Your task to perform on an android device: Find coffee shops on Maps Image 0: 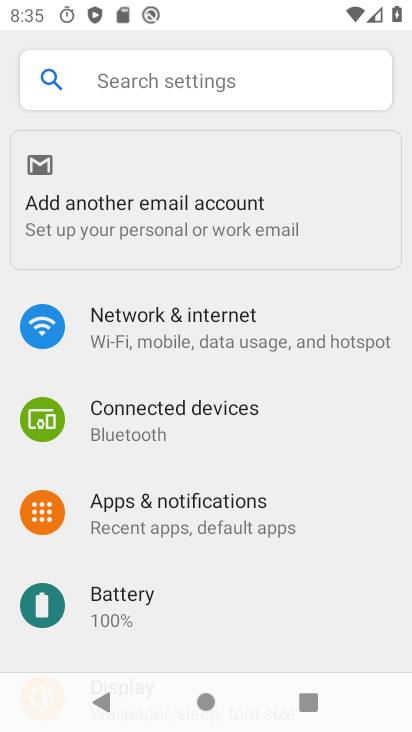
Step 0: press home button
Your task to perform on an android device: Find coffee shops on Maps Image 1: 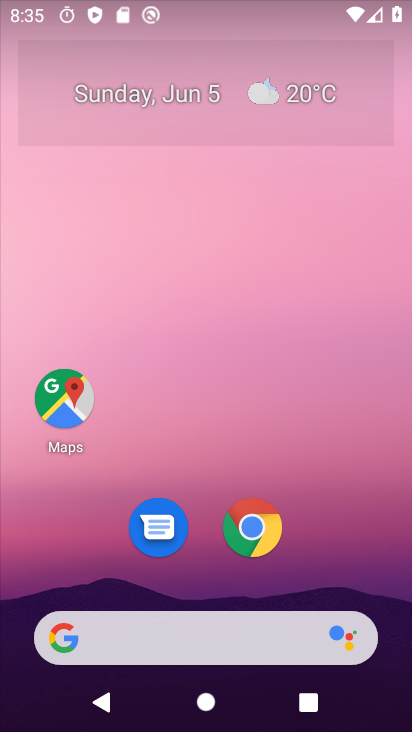
Step 1: drag from (237, 703) to (242, 109)
Your task to perform on an android device: Find coffee shops on Maps Image 2: 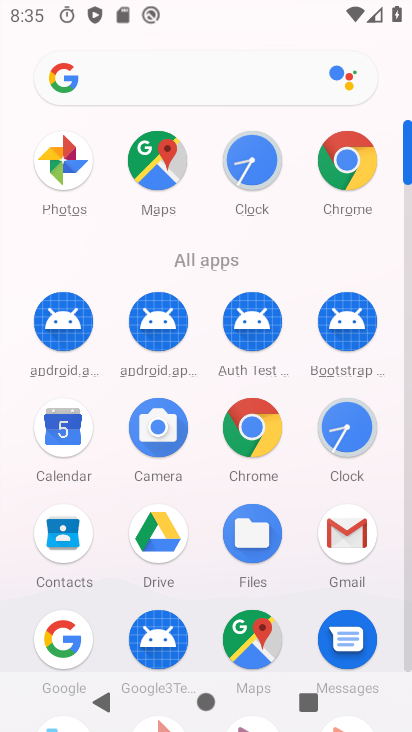
Step 2: click (254, 632)
Your task to perform on an android device: Find coffee shops on Maps Image 3: 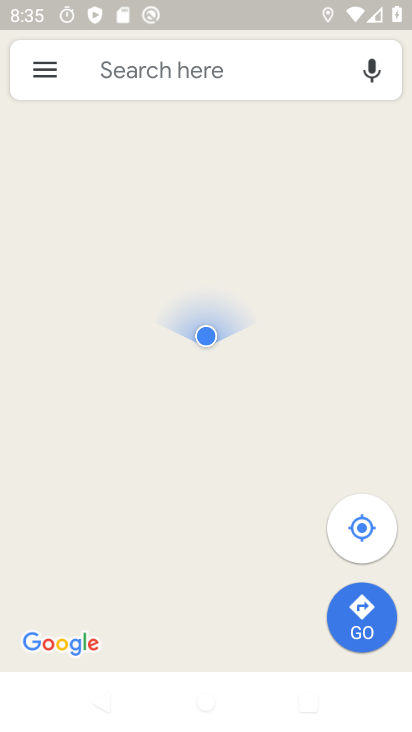
Step 3: click (206, 75)
Your task to perform on an android device: Find coffee shops on Maps Image 4: 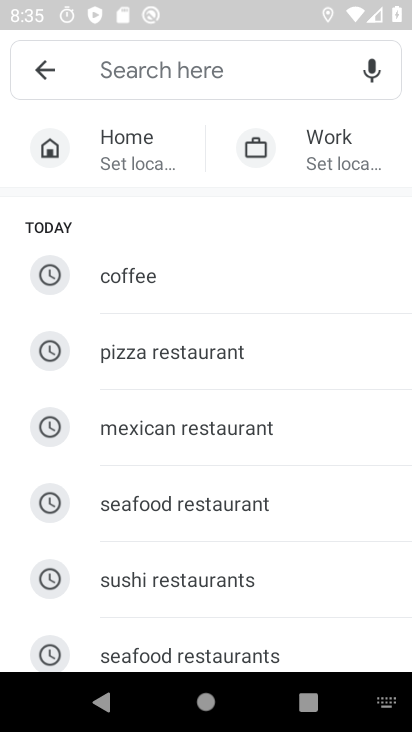
Step 4: type "coffee shops"
Your task to perform on an android device: Find coffee shops on Maps Image 5: 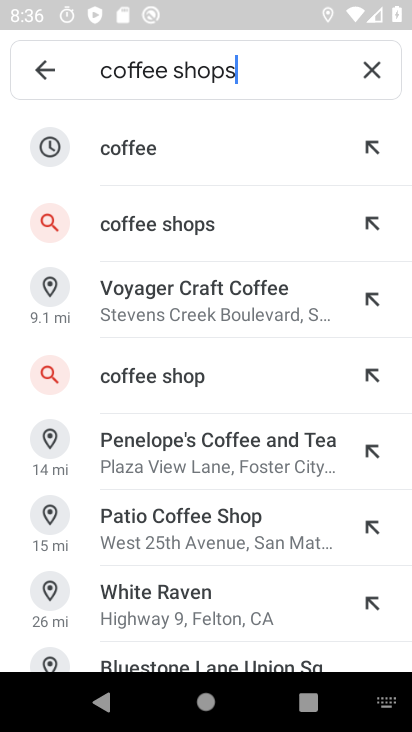
Step 5: click (149, 227)
Your task to perform on an android device: Find coffee shops on Maps Image 6: 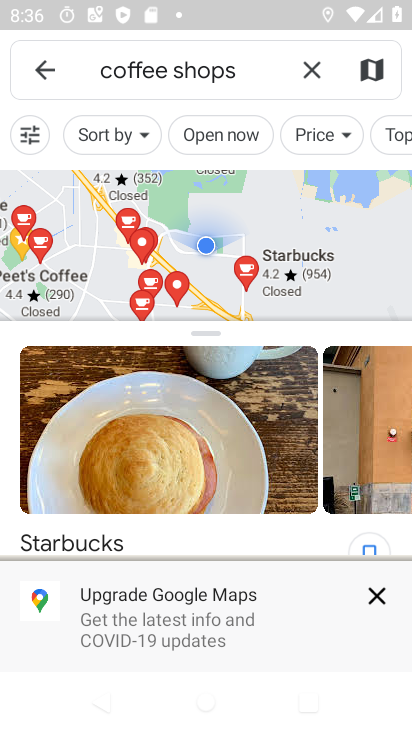
Step 6: task complete